Your task to perform on an android device: clear history in the chrome app Image 0: 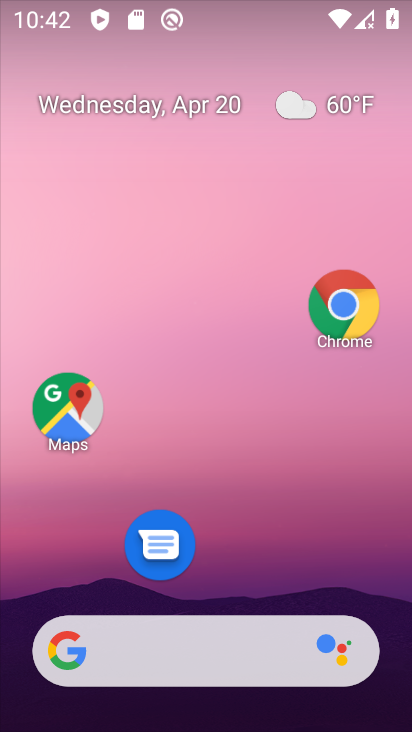
Step 0: drag from (264, 250) to (269, 163)
Your task to perform on an android device: clear history in the chrome app Image 1: 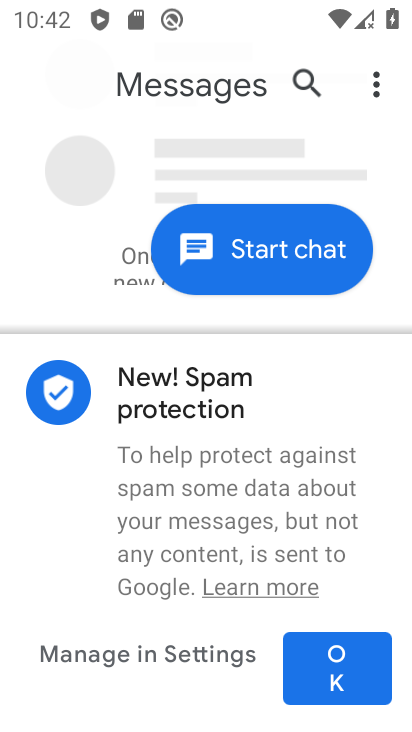
Step 1: press home button
Your task to perform on an android device: clear history in the chrome app Image 2: 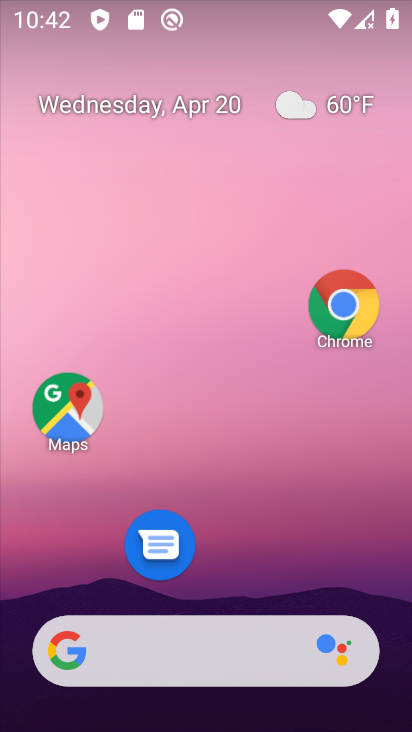
Step 2: click (285, 307)
Your task to perform on an android device: clear history in the chrome app Image 3: 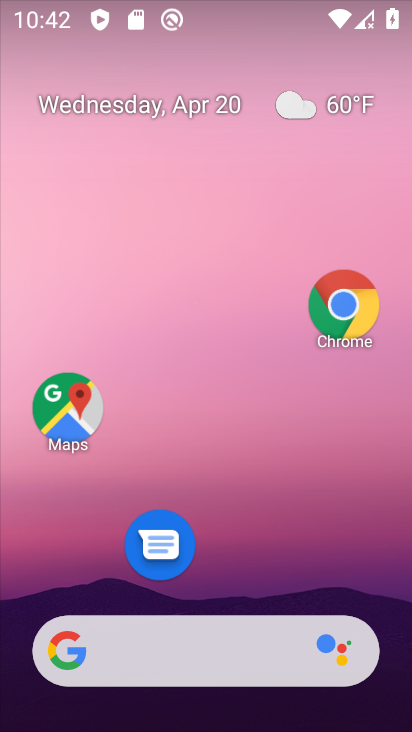
Step 3: click (342, 329)
Your task to perform on an android device: clear history in the chrome app Image 4: 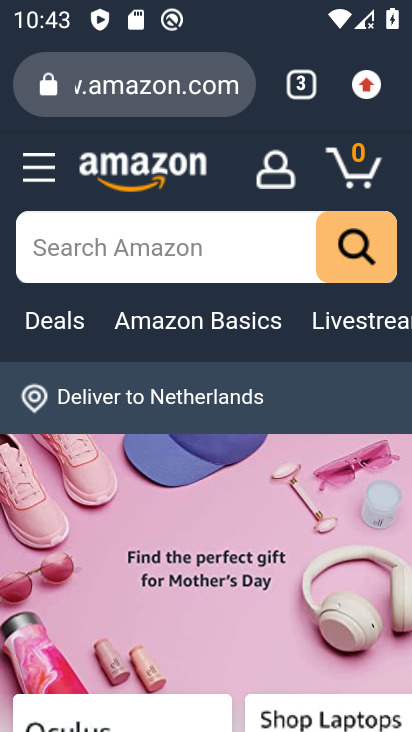
Step 4: click (360, 91)
Your task to perform on an android device: clear history in the chrome app Image 5: 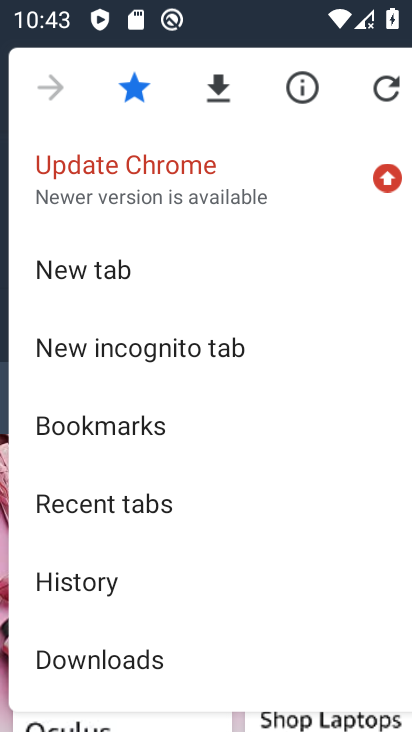
Step 5: click (160, 571)
Your task to perform on an android device: clear history in the chrome app Image 6: 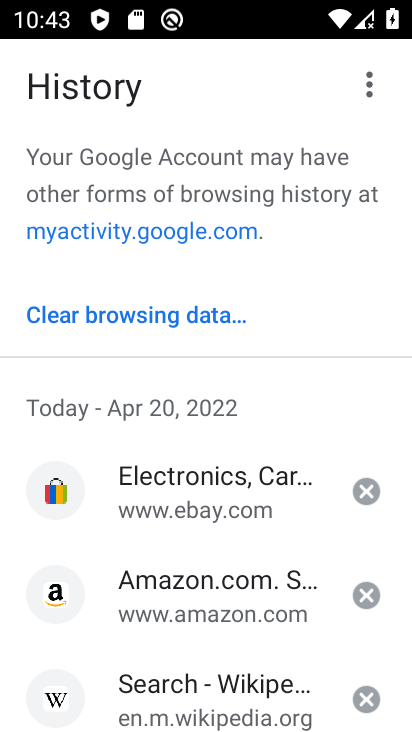
Step 6: click (179, 309)
Your task to perform on an android device: clear history in the chrome app Image 7: 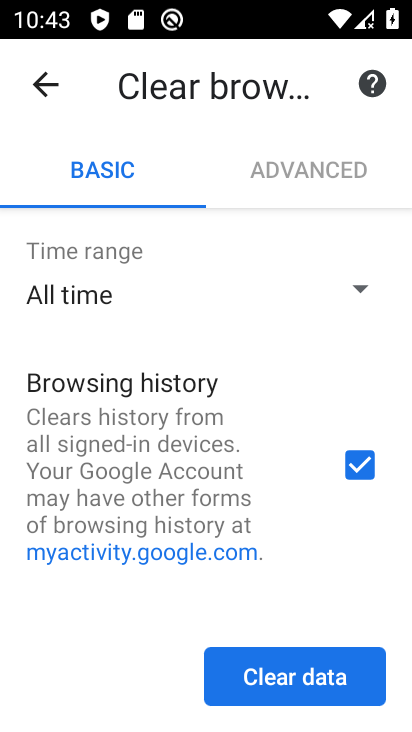
Step 7: click (339, 676)
Your task to perform on an android device: clear history in the chrome app Image 8: 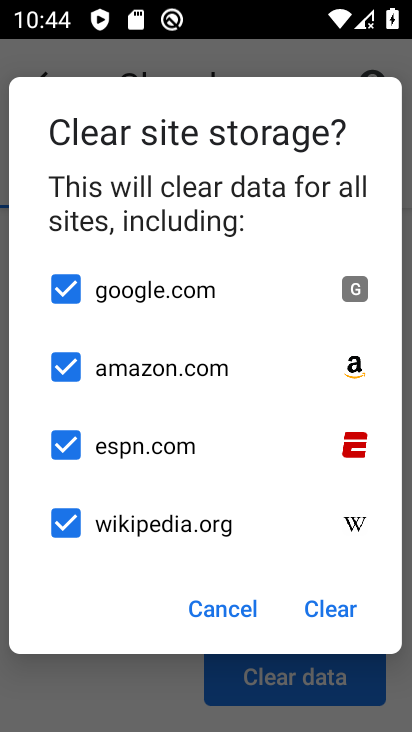
Step 8: click (329, 615)
Your task to perform on an android device: clear history in the chrome app Image 9: 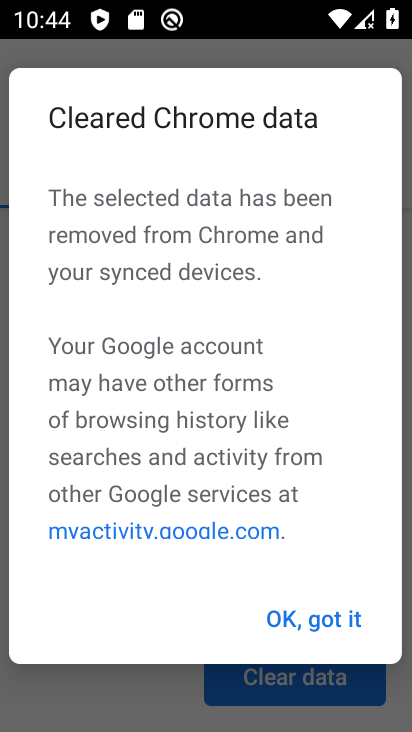
Step 9: click (328, 624)
Your task to perform on an android device: clear history in the chrome app Image 10: 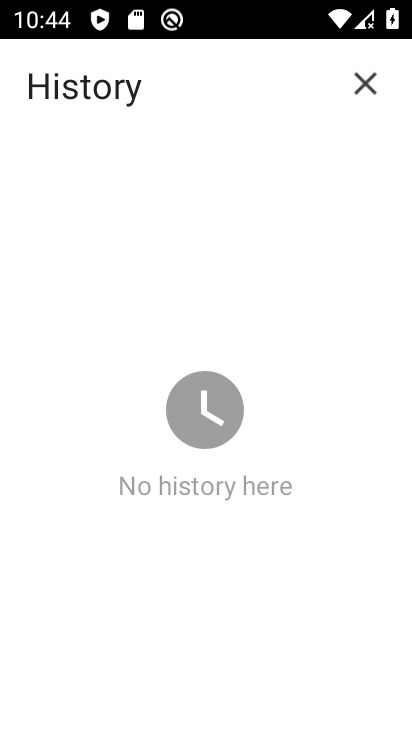
Step 10: task complete